Your task to perform on an android device: delete the emails in spam in the gmail app Image 0: 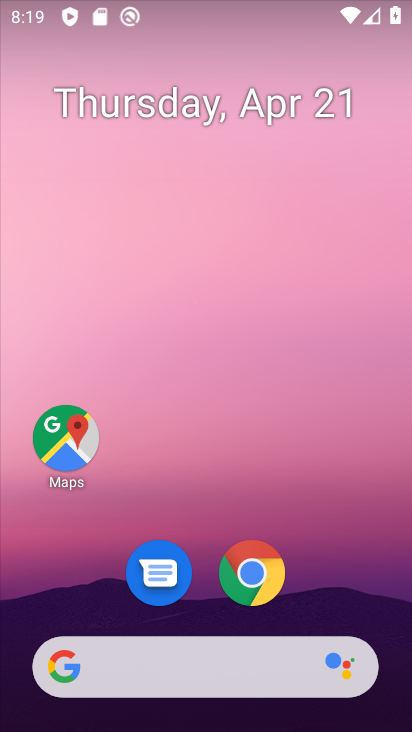
Step 0: drag from (364, 619) to (294, 117)
Your task to perform on an android device: delete the emails in spam in the gmail app Image 1: 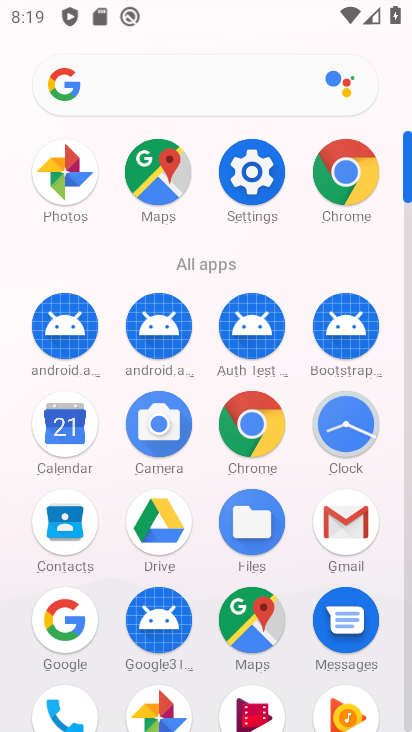
Step 1: drag from (204, 494) to (200, 231)
Your task to perform on an android device: delete the emails in spam in the gmail app Image 2: 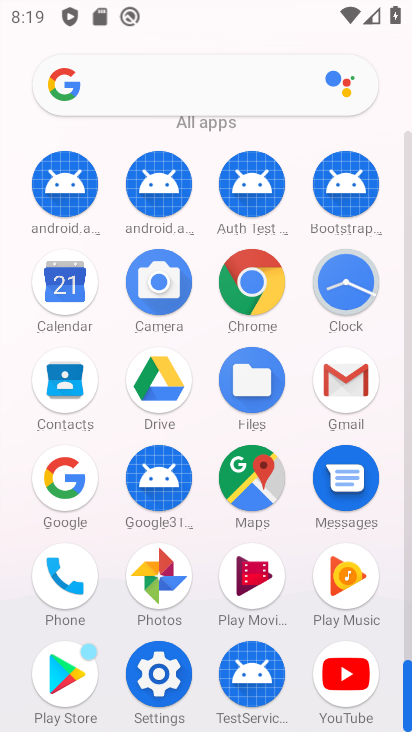
Step 2: click (343, 376)
Your task to perform on an android device: delete the emails in spam in the gmail app Image 3: 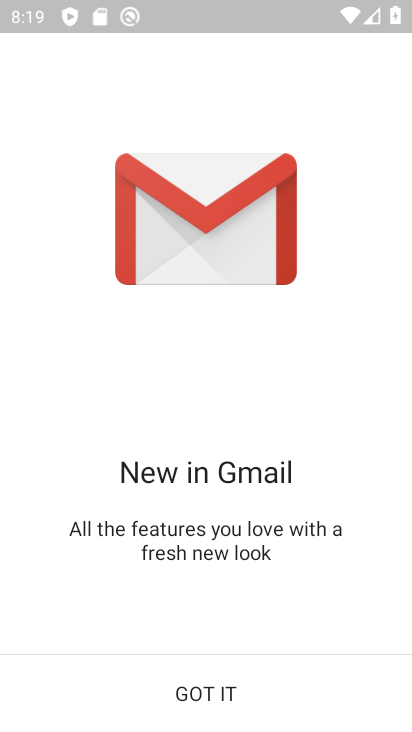
Step 3: click (200, 676)
Your task to perform on an android device: delete the emails in spam in the gmail app Image 4: 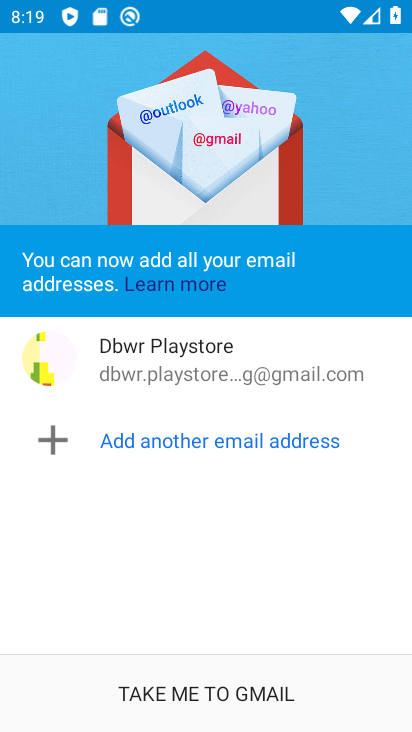
Step 4: click (215, 690)
Your task to perform on an android device: delete the emails in spam in the gmail app Image 5: 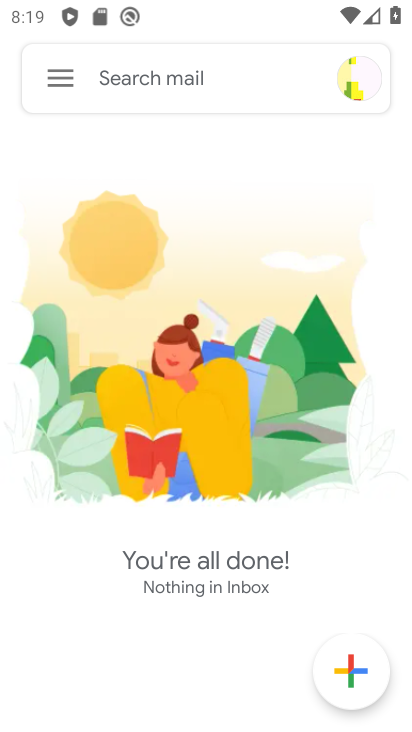
Step 5: click (59, 87)
Your task to perform on an android device: delete the emails in spam in the gmail app Image 6: 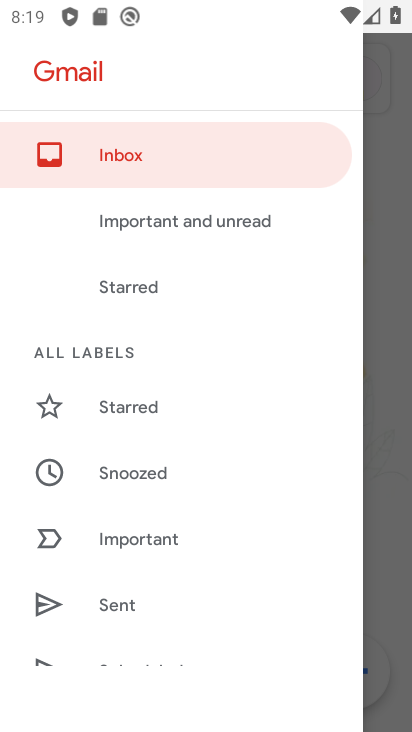
Step 6: drag from (228, 609) to (182, 197)
Your task to perform on an android device: delete the emails in spam in the gmail app Image 7: 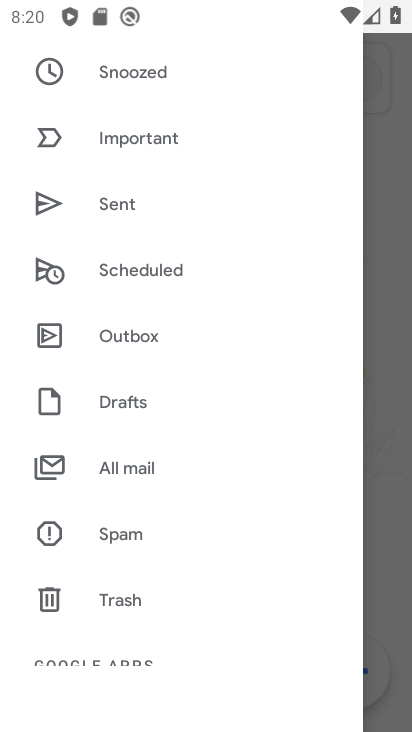
Step 7: click (132, 536)
Your task to perform on an android device: delete the emails in spam in the gmail app Image 8: 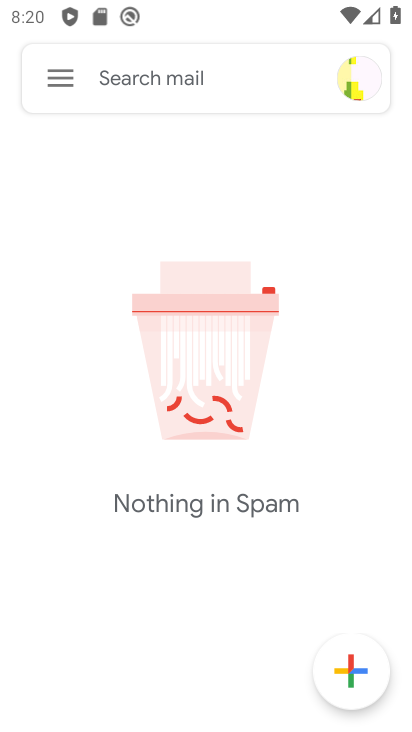
Step 8: task complete